Your task to perform on an android device: open app "Truecaller" (install if not already installed) and enter user name: "coauthor@gmail.com" and password: "quadrangle" Image 0: 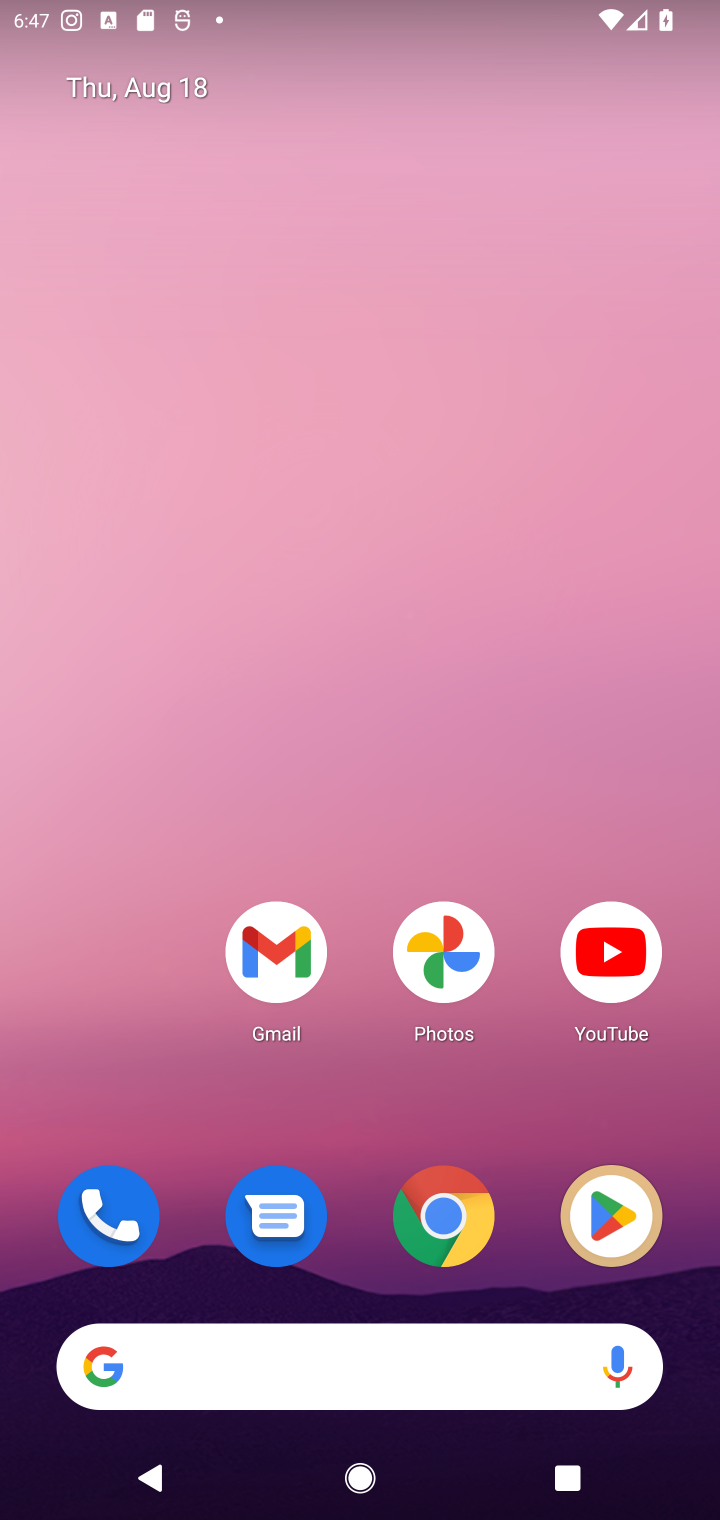
Step 0: click (562, 1209)
Your task to perform on an android device: open app "Truecaller" (install if not already installed) and enter user name: "coauthor@gmail.com" and password: "quadrangle" Image 1: 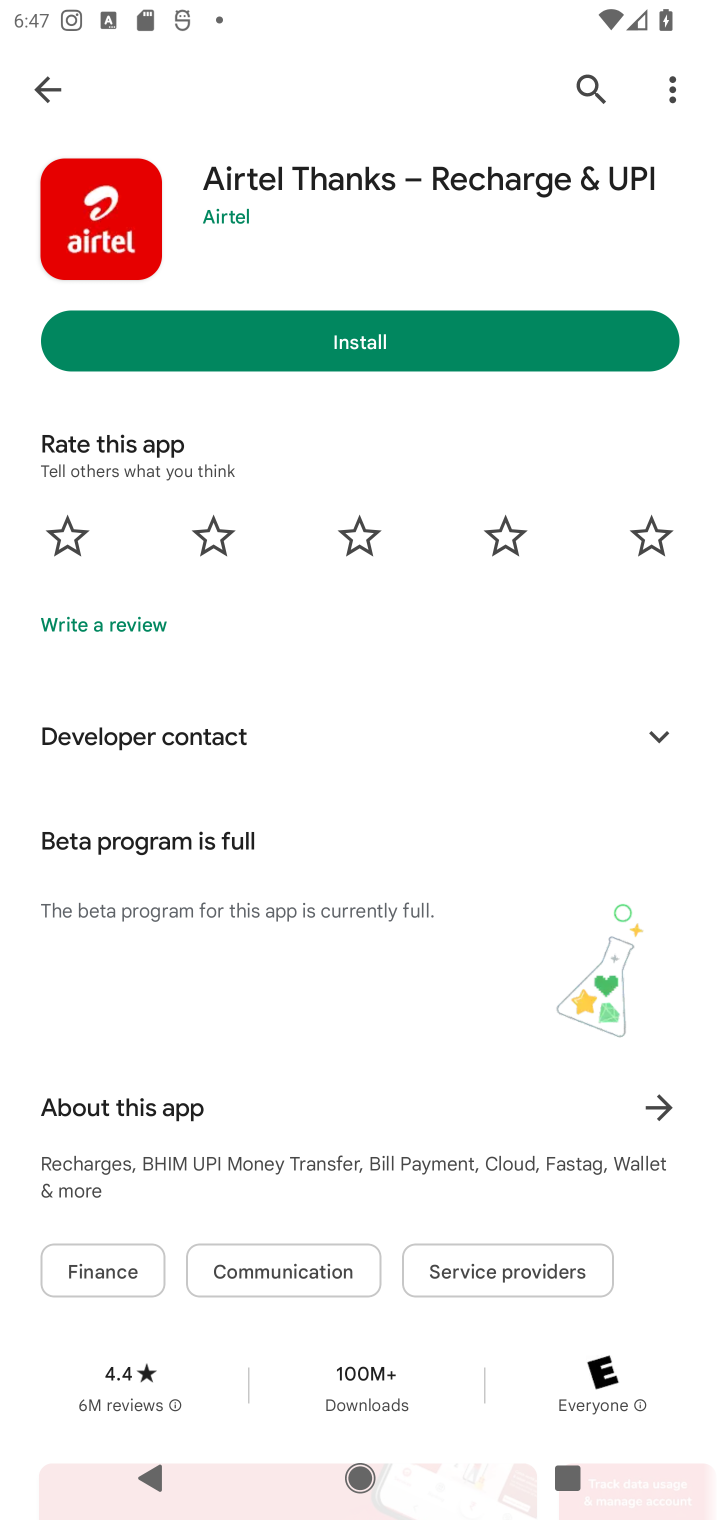
Step 1: click (586, 87)
Your task to perform on an android device: open app "Truecaller" (install if not already installed) and enter user name: "coauthor@gmail.com" and password: "quadrangle" Image 2: 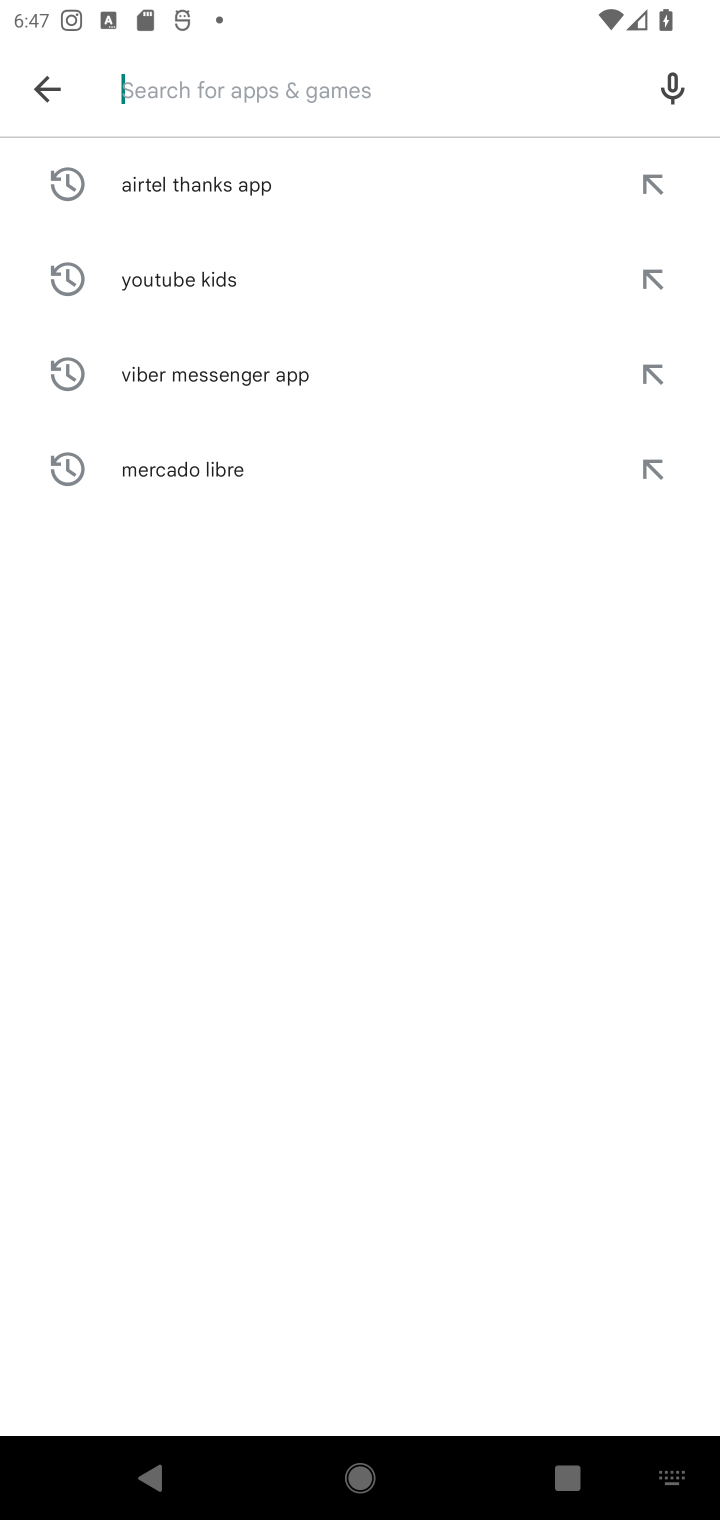
Step 2: type "Truecaller"
Your task to perform on an android device: open app "Truecaller" (install if not already installed) and enter user name: "coauthor@gmail.com" and password: "quadrangle" Image 3: 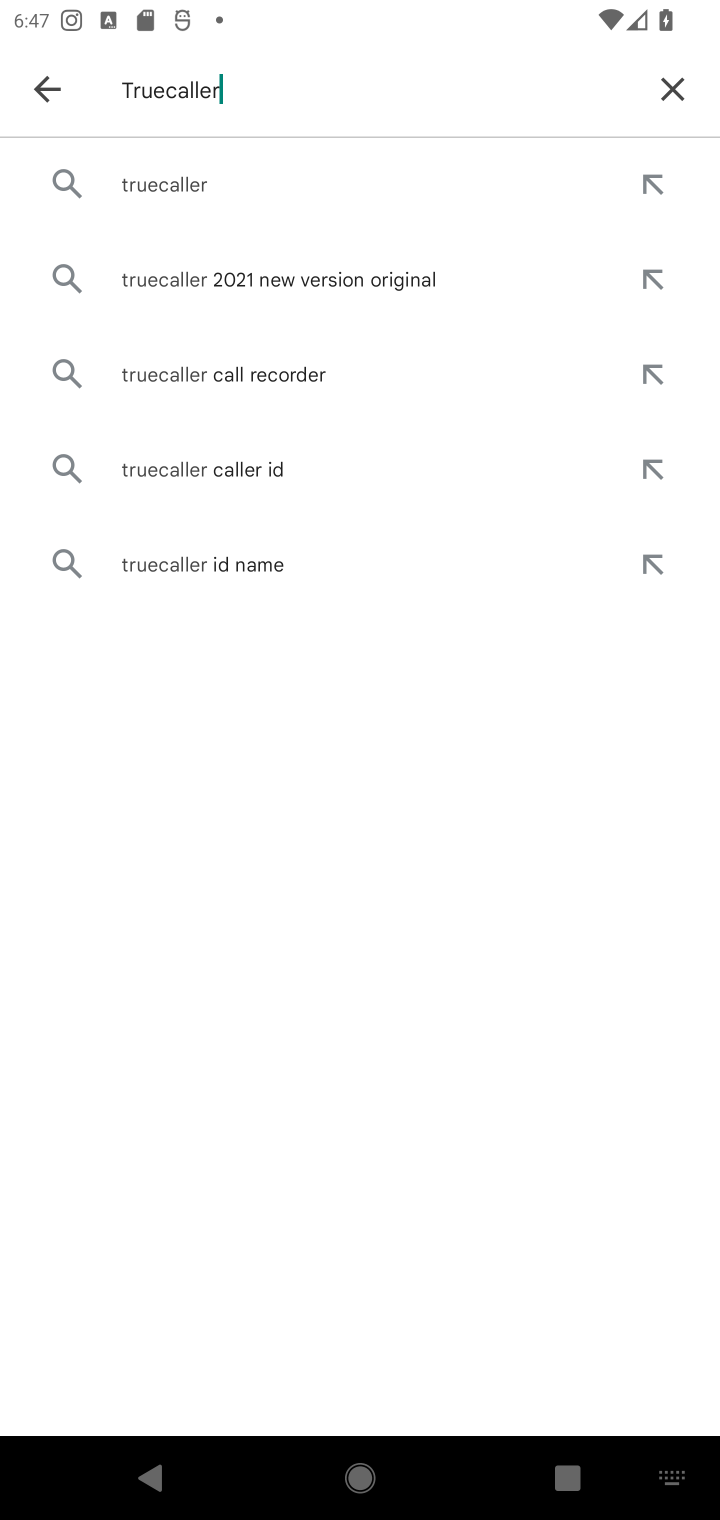
Step 3: click (163, 192)
Your task to perform on an android device: open app "Truecaller" (install if not already installed) and enter user name: "coauthor@gmail.com" and password: "quadrangle" Image 4: 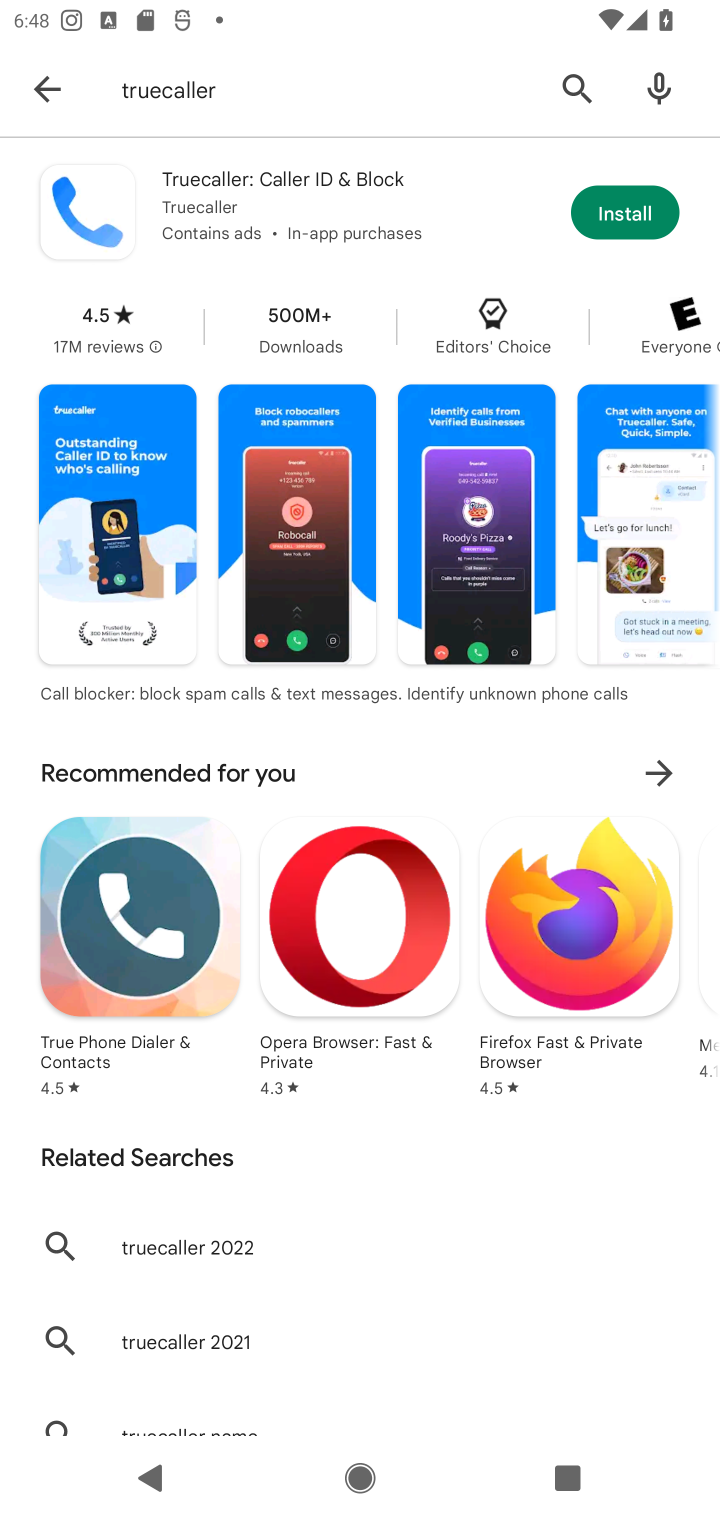
Step 4: click (612, 226)
Your task to perform on an android device: open app "Truecaller" (install if not already installed) and enter user name: "coauthor@gmail.com" and password: "quadrangle" Image 5: 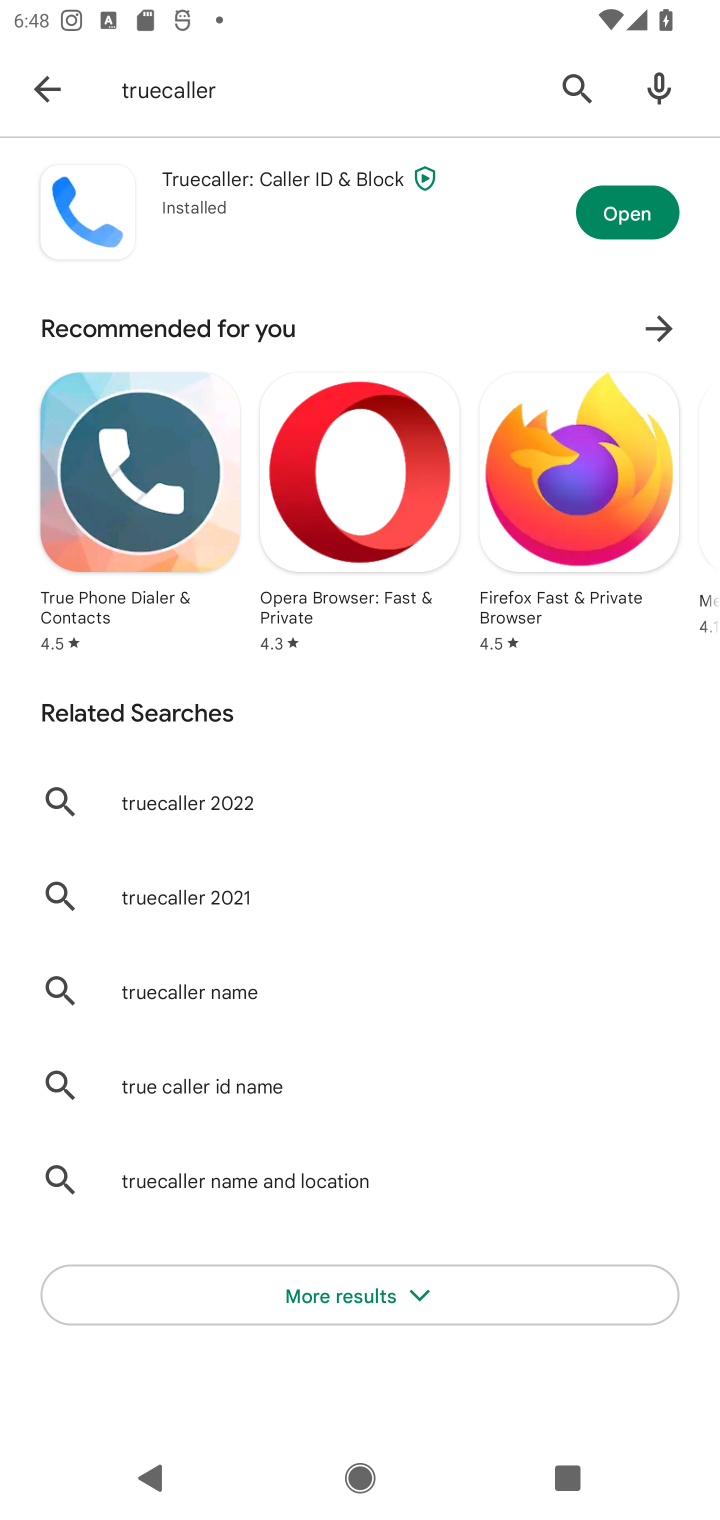
Step 5: click (645, 221)
Your task to perform on an android device: open app "Truecaller" (install if not already installed) and enter user name: "coauthor@gmail.com" and password: "quadrangle" Image 6: 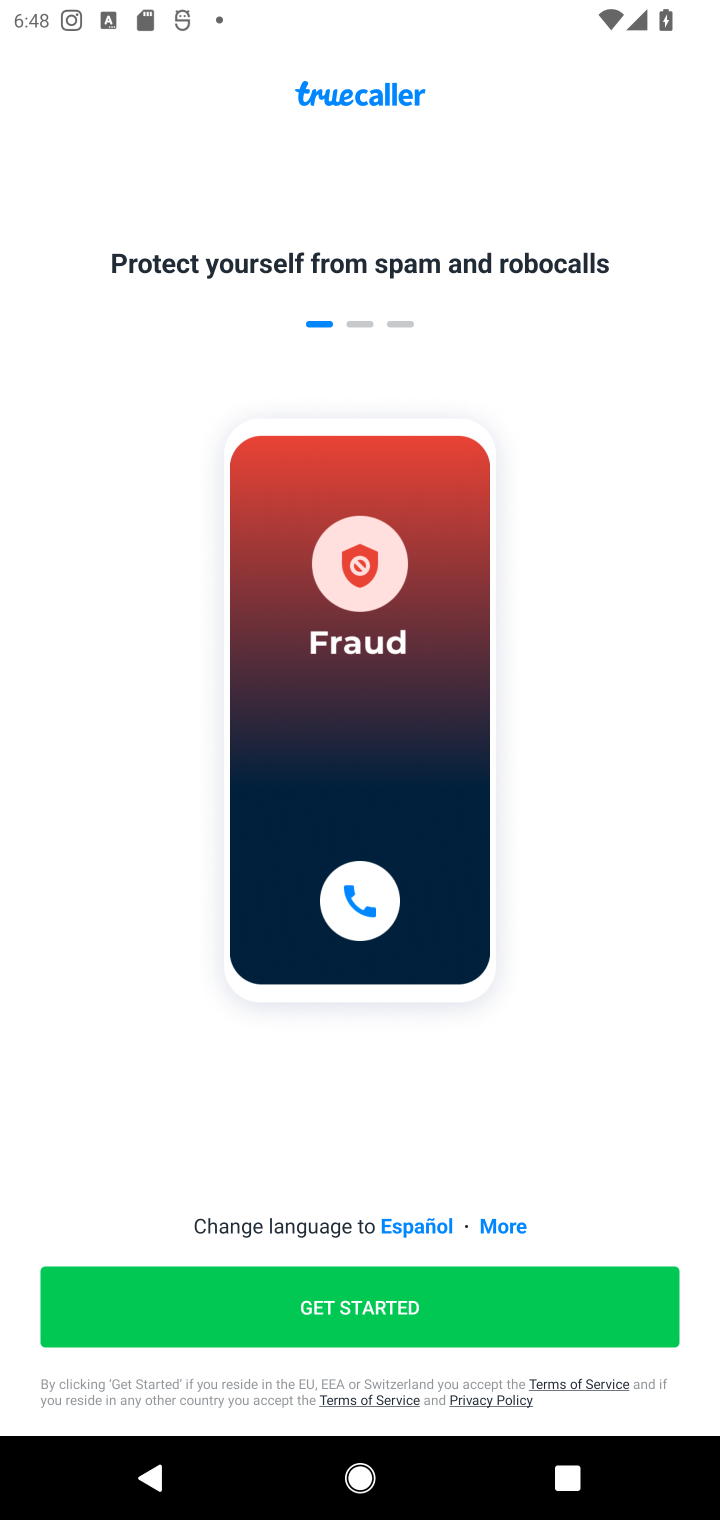
Step 6: task complete